Your task to perform on an android device: read, delete, or share a saved page in the chrome app Image 0: 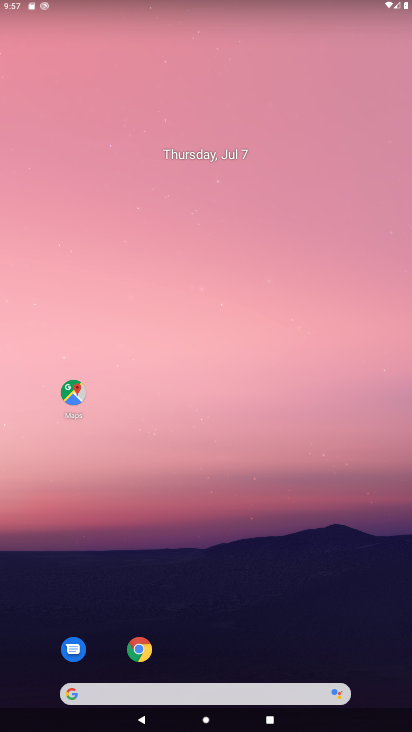
Step 0: click (142, 648)
Your task to perform on an android device: read, delete, or share a saved page in the chrome app Image 1: 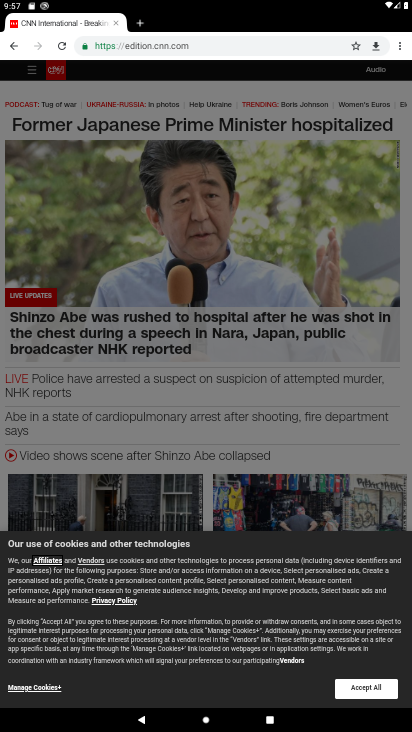
Step 1: click (397, 45)
Your task to perform on an android device: read, delete, or share a saved page in the chrome app Image 2: 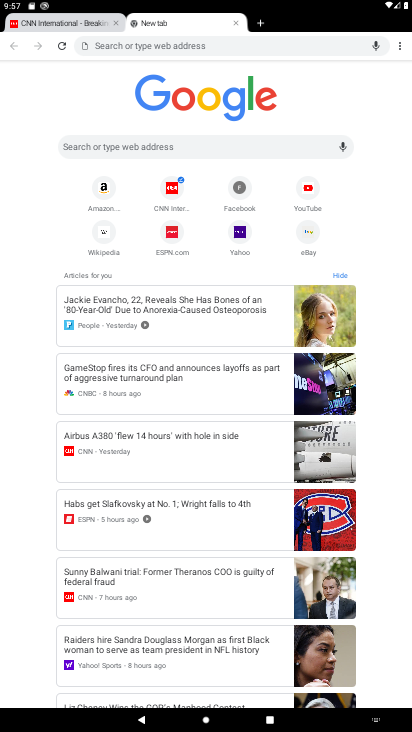
Step 2: click (397, 45)
Your task to perform on an android device: read, delete, or share a saved page in the chrome app Image 3: 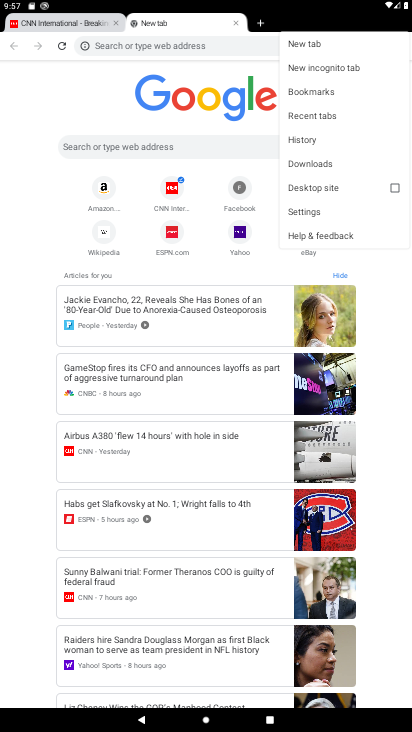
Step 3: click (340, 168)
Your task to perform on an android device: read, delete, or share a saved page in the chrome app Image 4: 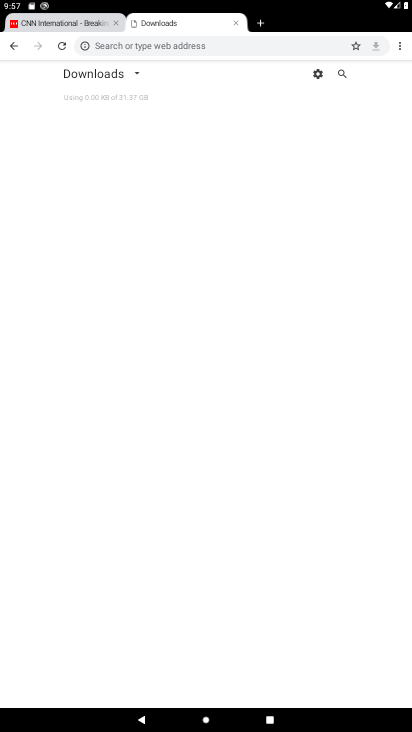
Step 4: click (133, 68)
Your task to perform on an android device: read, delete, or share a saved page in the chrome app Image 5: 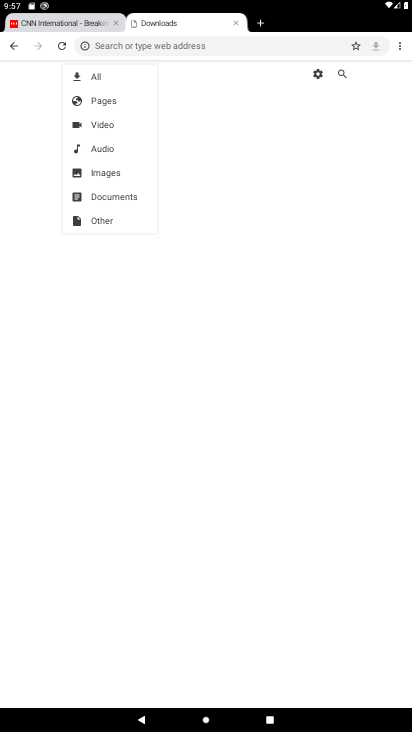
Step 5: click (118, 97)
Your task to perform on an android device: read, delete, or share a saved page in the chrome app Image 6: 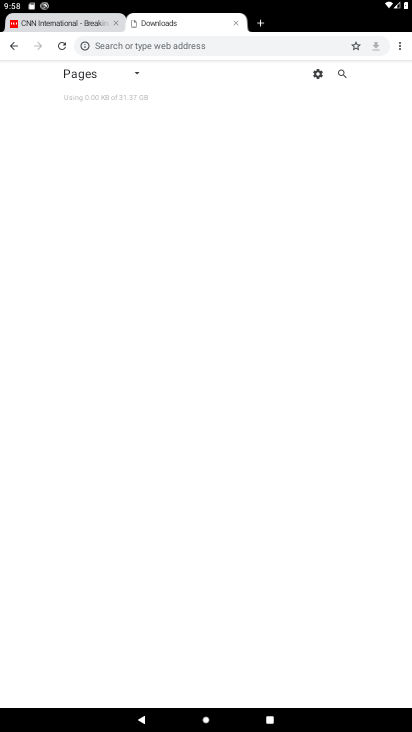
Step 6: task complete